Your task to perform on an android device: Open Yahoo.com Image 0: 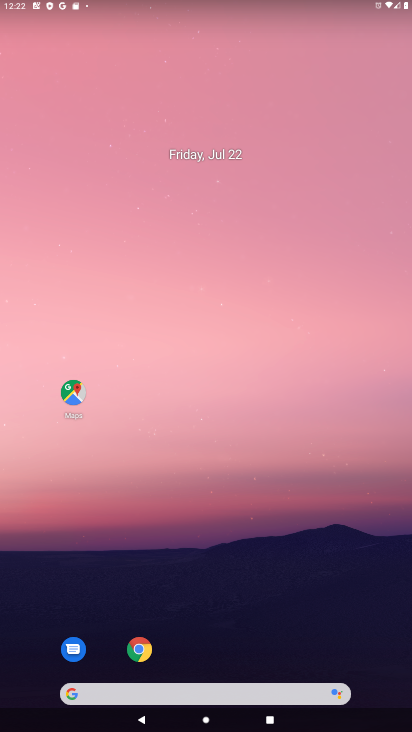
Step 0: drag from (266, 627) to (194, 190)
Your task to perform on an android device: Open Yahoo.com Image 1: 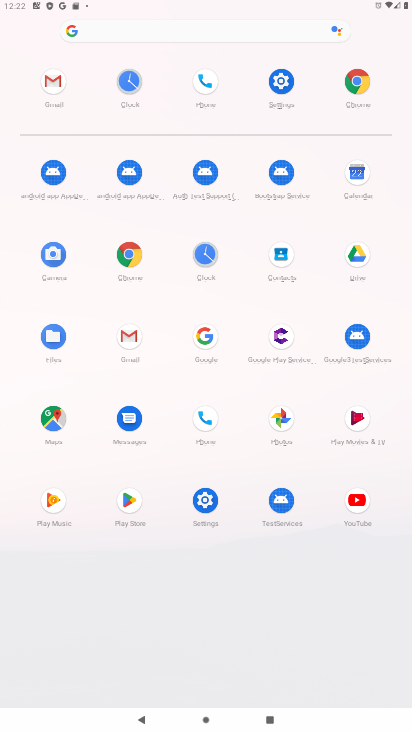
Step 1: click (358, 78)
Your task to perform on an android device: Open Yahoo.com Image 2: 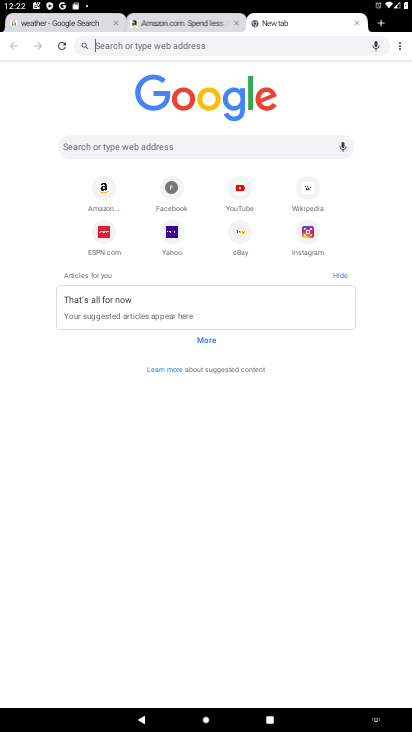
Step 2: click (321, 40)
Your task to perform on an android device: Open Yahoo.com Image 3: 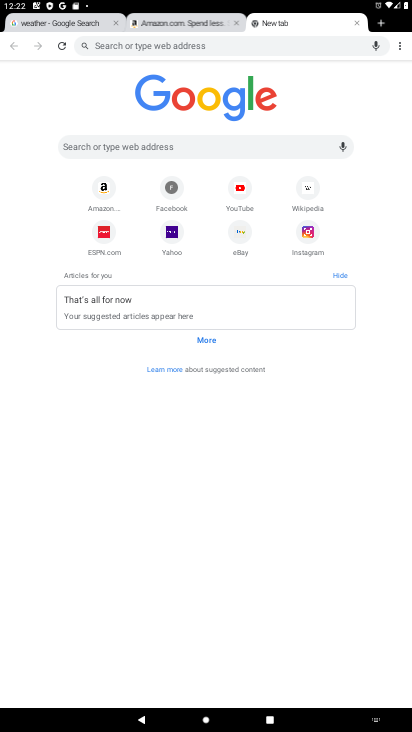
Step 3: type "yahoo.com"
Your task to perform on an android device: Open Yahoo.com Image 4: 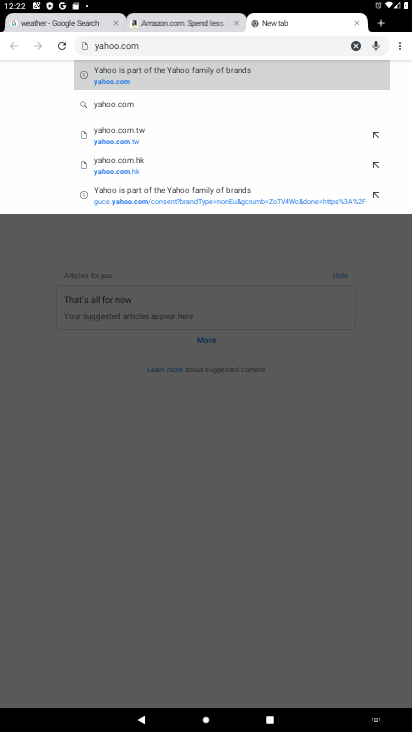
Step 4: click (163, 76)
Your task to perform on an android device: Open Yahoo.com Image 5: 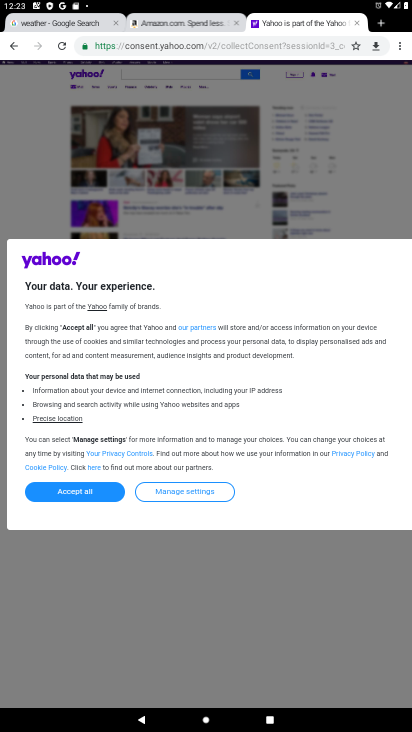
Step 5: task complete